Your task to perform on an android device: Open accessibility settings Image 0: 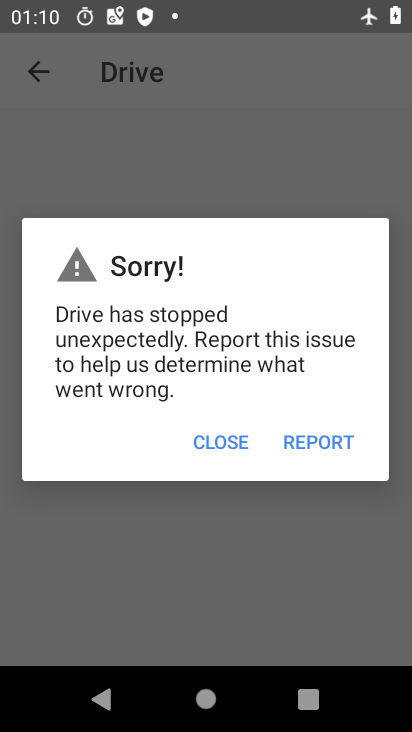
Step 0: press home button
Your task to perform on an android device: Open accessibility settings Image 1: 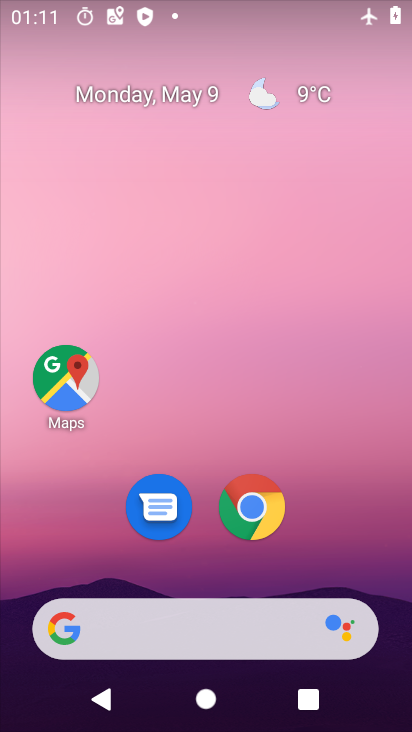
Step 1: drag from (234, 720) to (229, 149)
Your task to perform on an android device: Open accessibility settings Image 2: 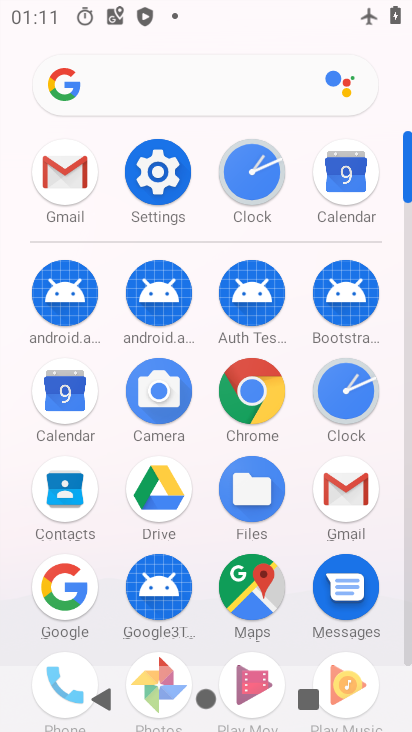
Step 2: click (168, 171)
Your task to perform on an android device: Open accessibility settings Image 3: 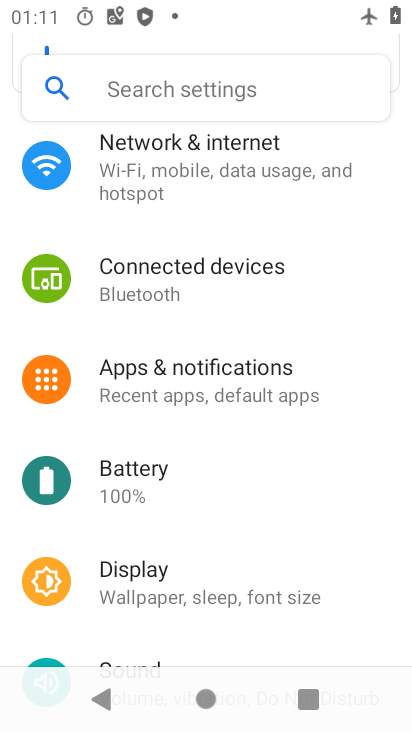
Step 3: drag from (223, 648) to (215, 240)
Your task to perform on an android device: Open accessibility settings Image 4: 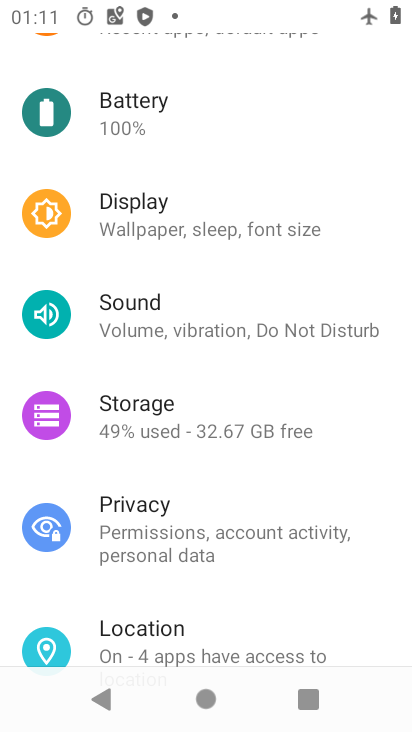
Step 4: drag from (239, 623) to (236, 290)
Your task to perform on an android device: Open accessibility settings Image 5: 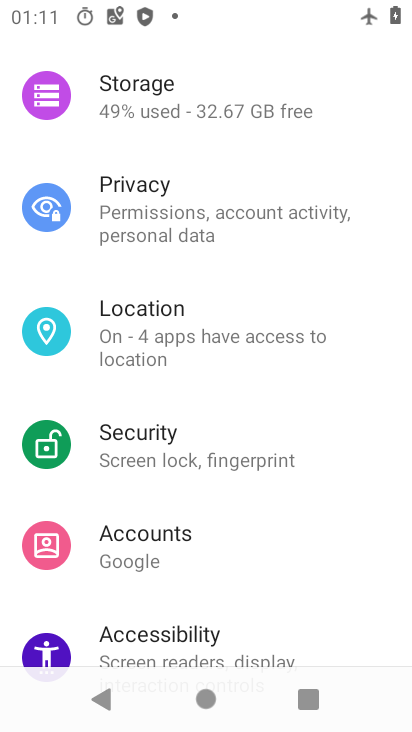
Step 5: click (147, 631)
Your task to perform on an android device: Open accessibility settings Image 6: 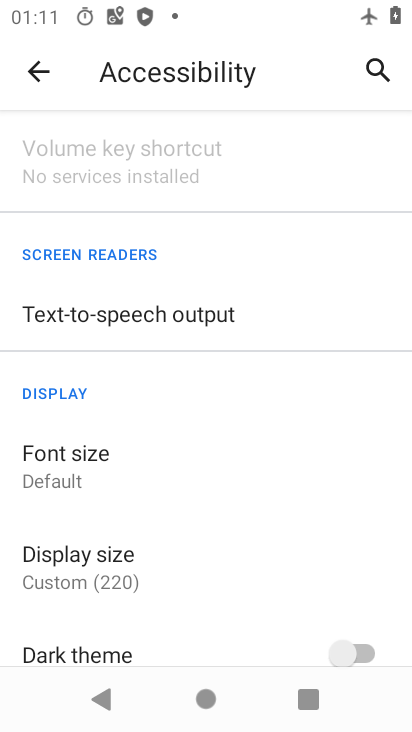
Step 6: task complete